Your task to perform on an android device: toggle location history Image 0: 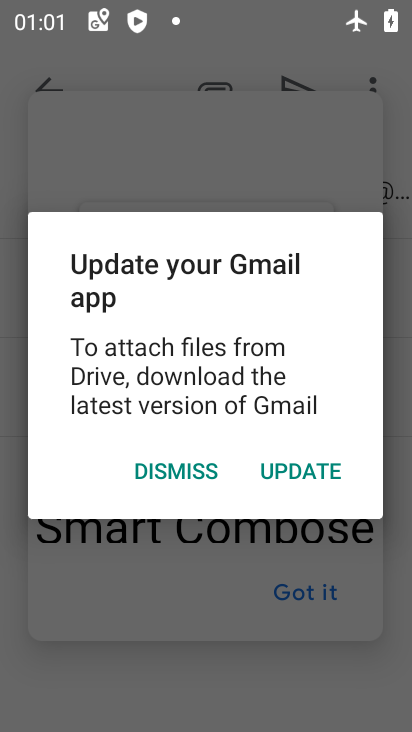
Step 0: press home button
Your task to perform on an android device: toggle location history Image 1: 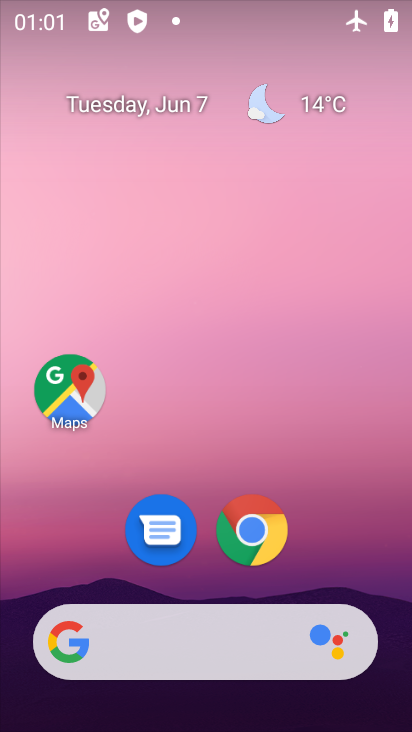
Step 1: drag from (338, 564) to (308, 269)
Your task to perform on an android device: toggle location history Image 2: 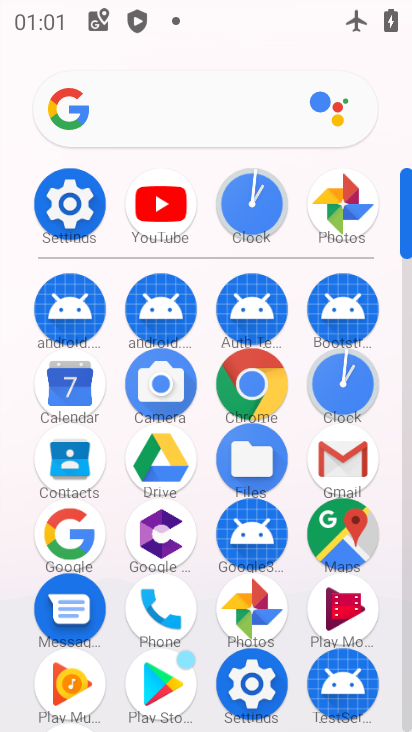
Step 2: click (72, 197)
Your task to perform on an android device: toggle location history Image 3: 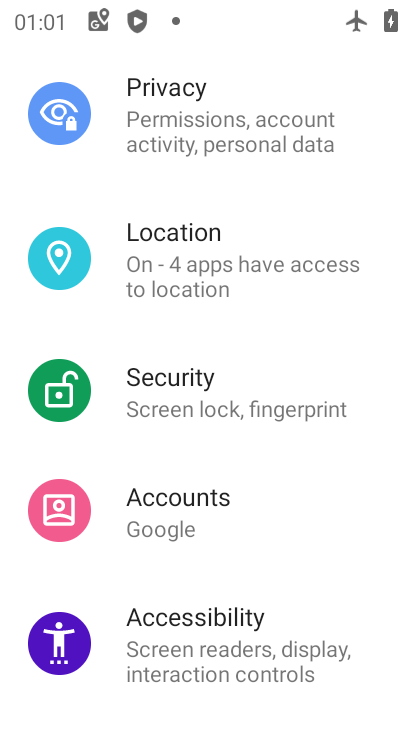
Step 3: click (187, 249)
Your task to perform on an android device: toggle location history Image 4: 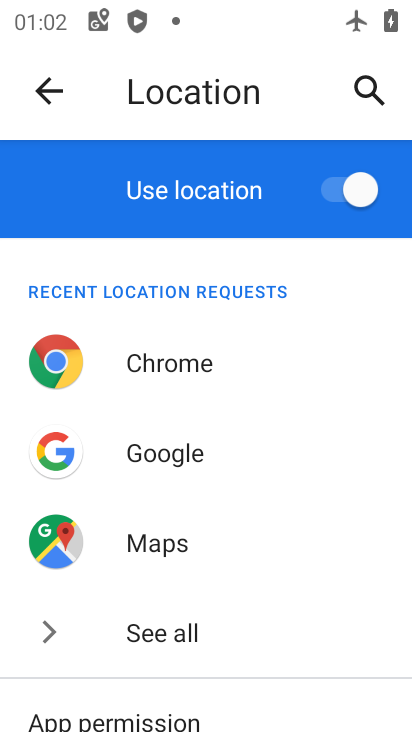
Step 4: drag from (190, 595) to (163, 252)
Your task to perform on an android device: toggle location history Image 5: 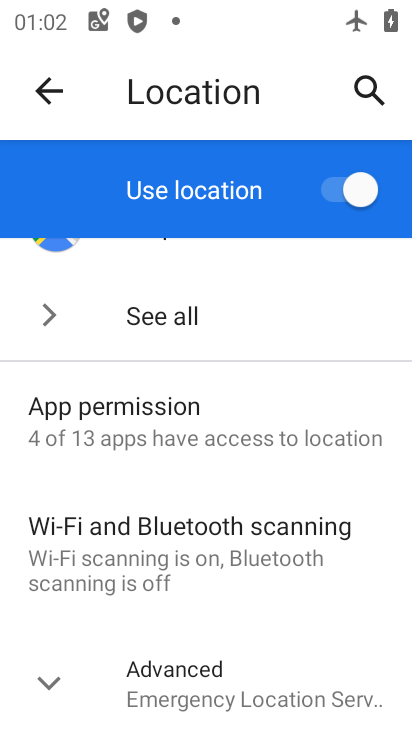
Step 5: drag from (193, 666) to (231, 386)
Your task to perform on an android device: toggle location history Image 6: 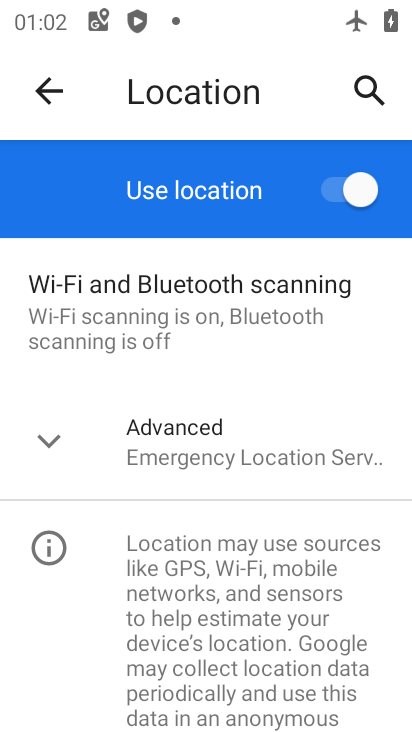
Step 6: click (217, 441)
Your task to perform on an android device: toggle location history Image 7: 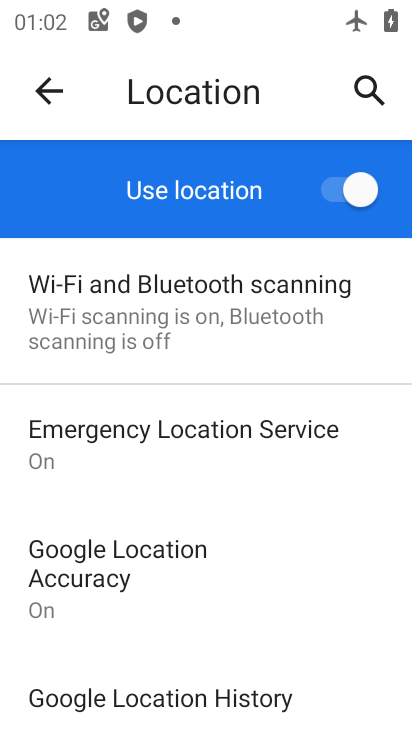
Step 7: drag from (176, 666) to (192, 435)
Your task to perform on an android device: toggle location history Image 8: 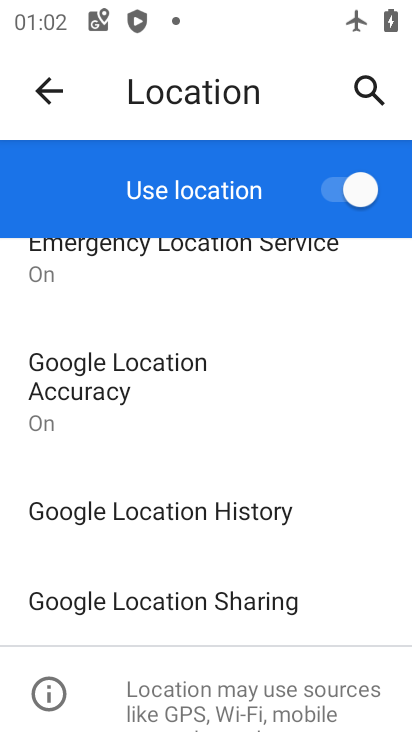
Step 8: click (171, 509)
Your task to perform on an android device: toggle location history Image 9: 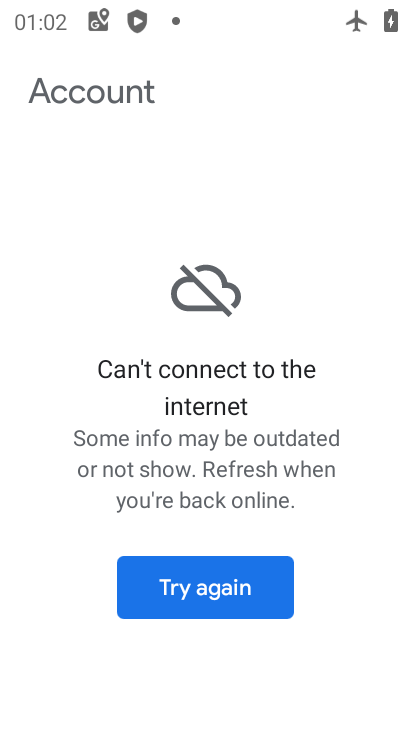
Step 9: press back button
Your task to perform on an android device: toggle location history Image 10: 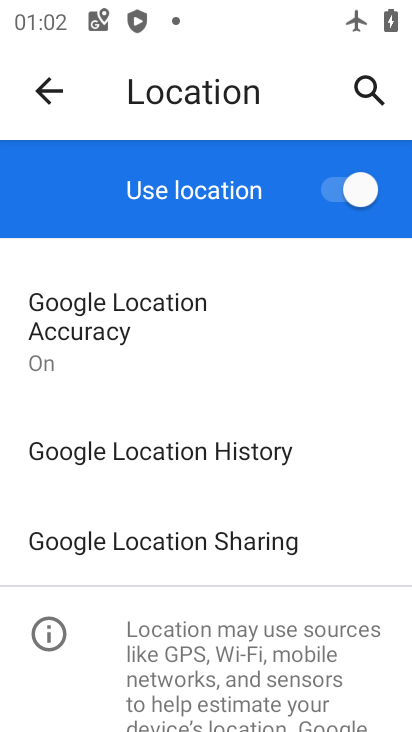
Step 10: click (234, 454)
Your task to perform on an android device: toggle location history Image 11: 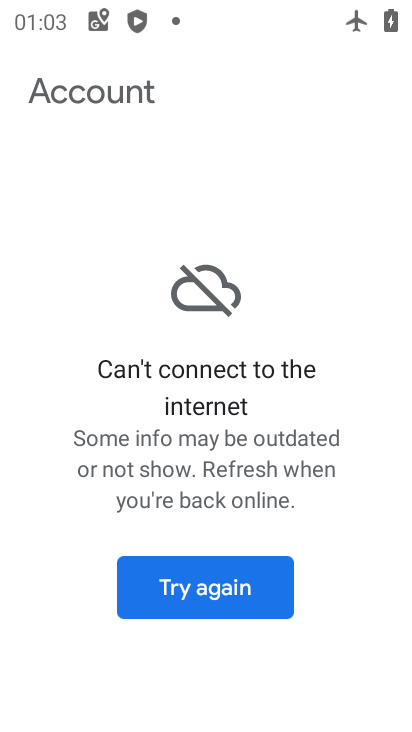
Step 11: press home button
Your task to perform on an android device: toggle location history Image 12: 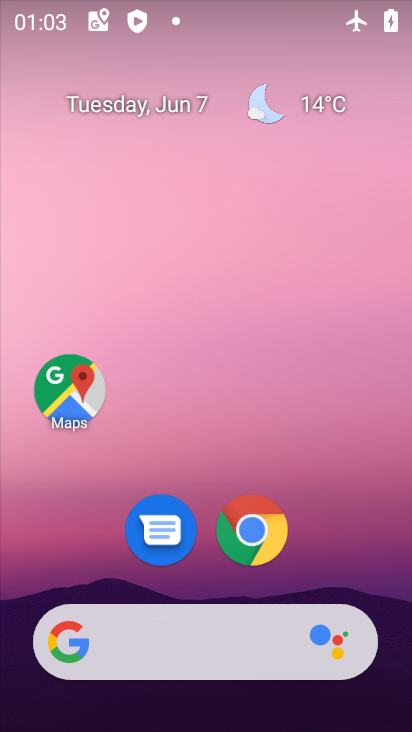
Step 12: drag from (315, 557) to (316, 292)
Your task to perform on an android device: toggle location history Image 13: 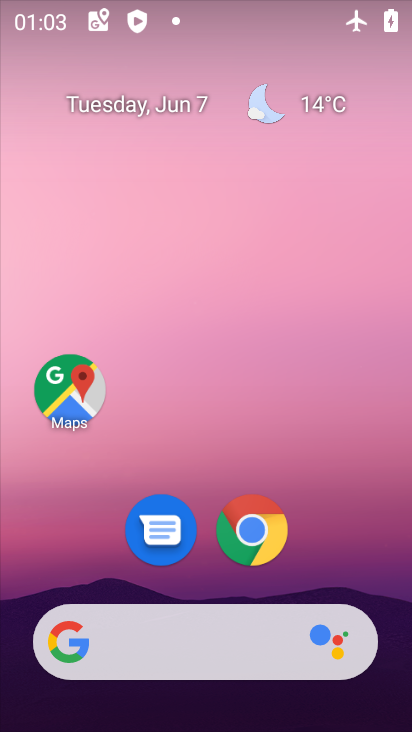
Step 13: drag from (287, 553) to (262, 190)
Your task to perform on an android device: toggle location history Image 14: 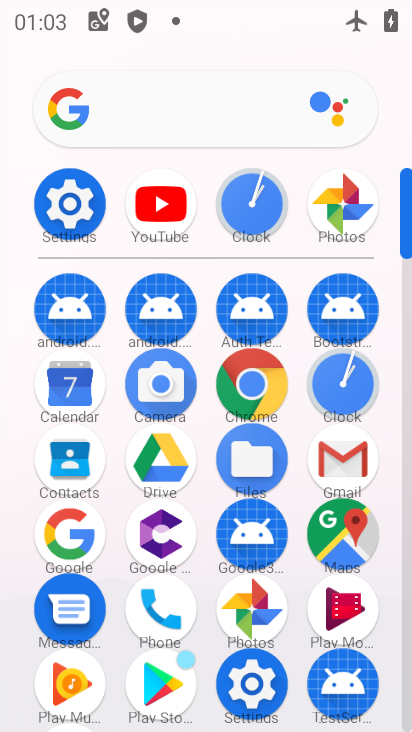
Step 14: click (75, 215)
Your task to perform on an android device: toggle location history Image 15: 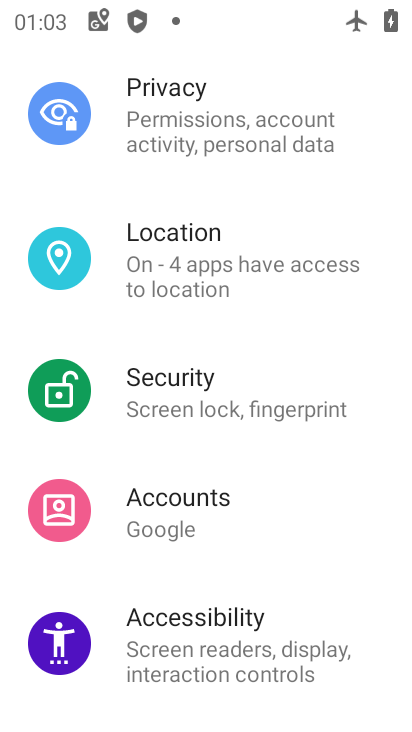
Step 15: click (151, 279)
Your task to perform on an android device: toggle location history Image 16: 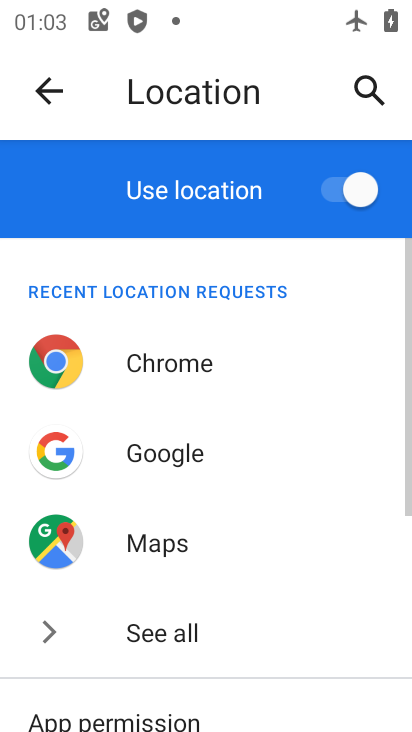
Step 16: drag from (214, 644) to (220, 290)
Your task to perform on an android device: toggle location history Image 17: 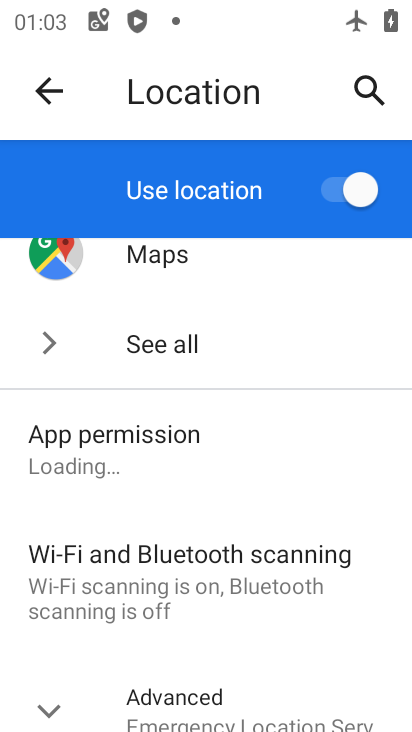
Step 17: click (225, 325)
Your task to perform on an android device: toggle location history Image 18: 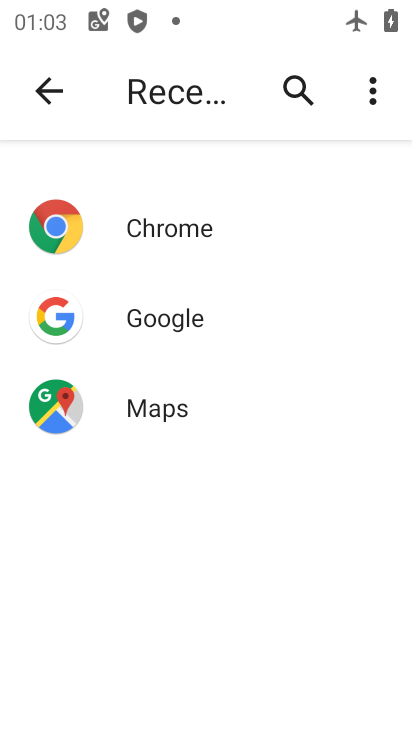
Step 18: drag from (231, 647) to (211, 420)
Your task to perform on an android device: toggle location history Image 19: 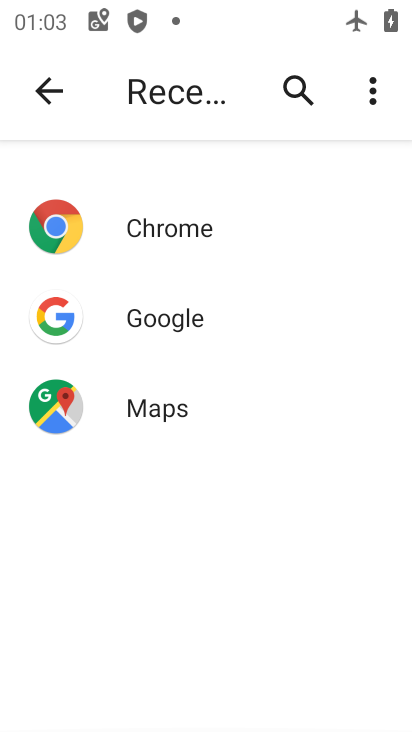
Step 19: click (64, 87)
Your task to perform on an android device: toggle location history Image 20: 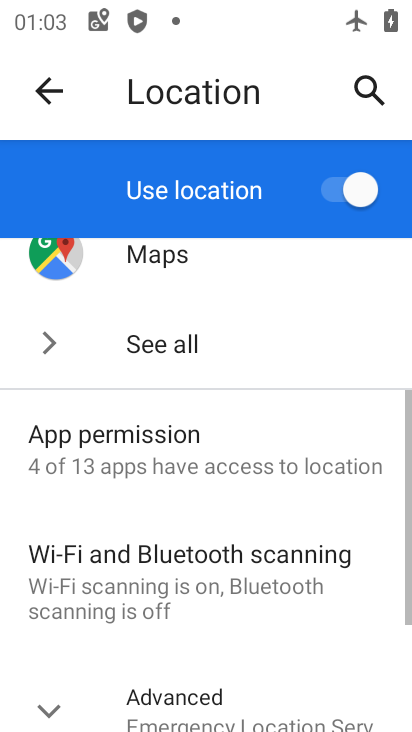
Step 20: drag from (228, 626) to (221, 325)
Your task to perform on an android device: toggle location history Image 21: 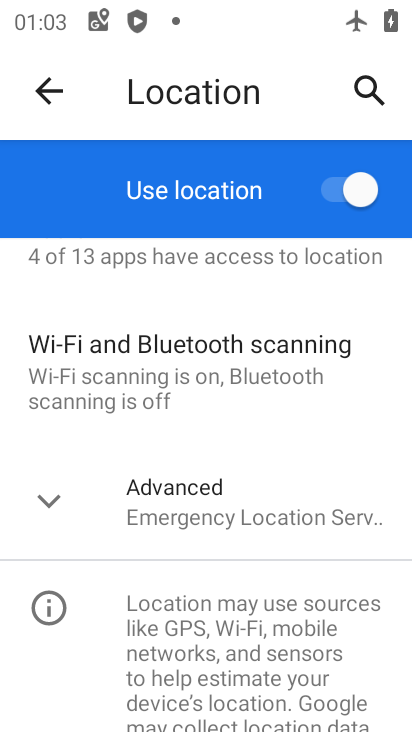
Step 21: click (200, 502)
Your task to perform on an android device: toggle location history Image 22: 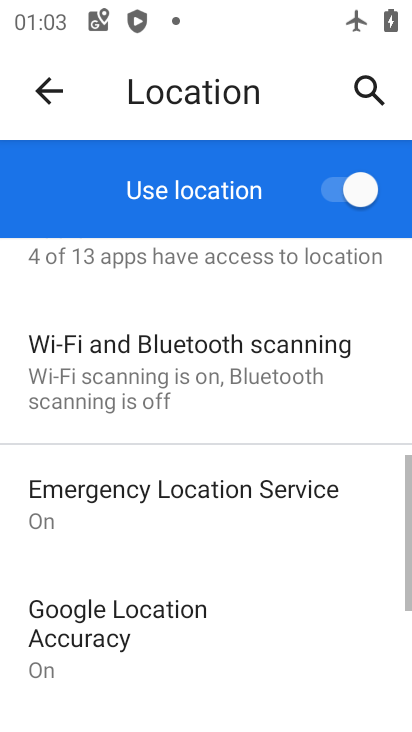
Step 22: drag from (163, 642) to (198, 384)
Your task to perform on an android device: toggle location history Image 23: 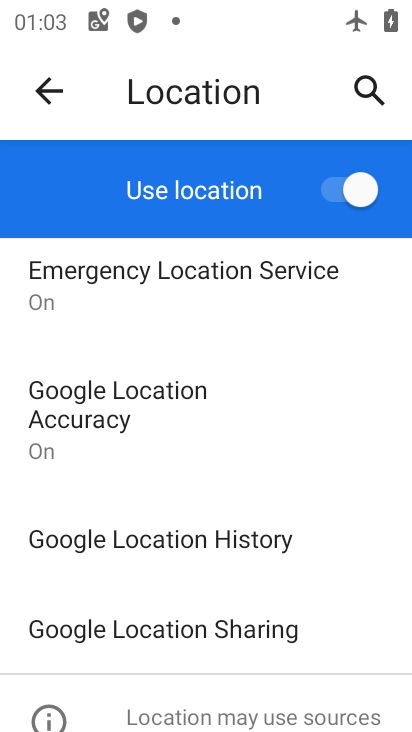
Step 23: click (178, 549)
Your task to perform on an android device: toggle location history Image 24: 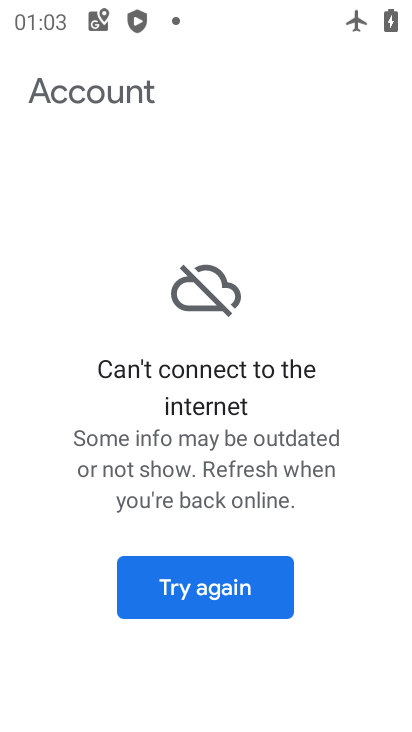
Step 24: task complete